Your task to perform on an android device: Search for "usb-c" on costco.com, select the first entry, add it to the cart, then select checkout. Image 0: 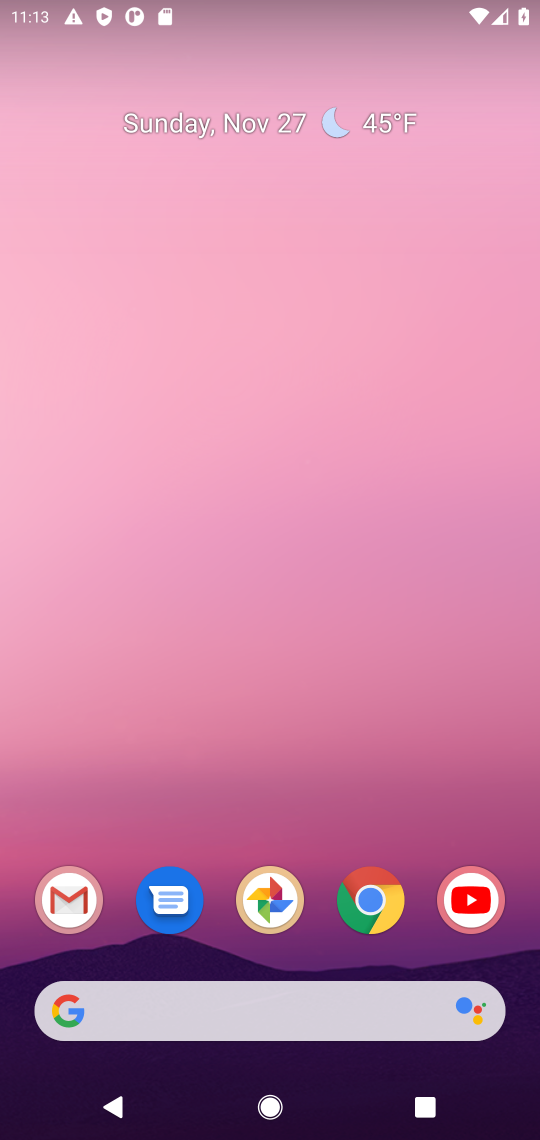
Step 0: click (371, 899)
Your task to perform on an android device: Search for "usb-c" on costco.com, select the first entry, add it to the cart, then select checkout. Image 1: 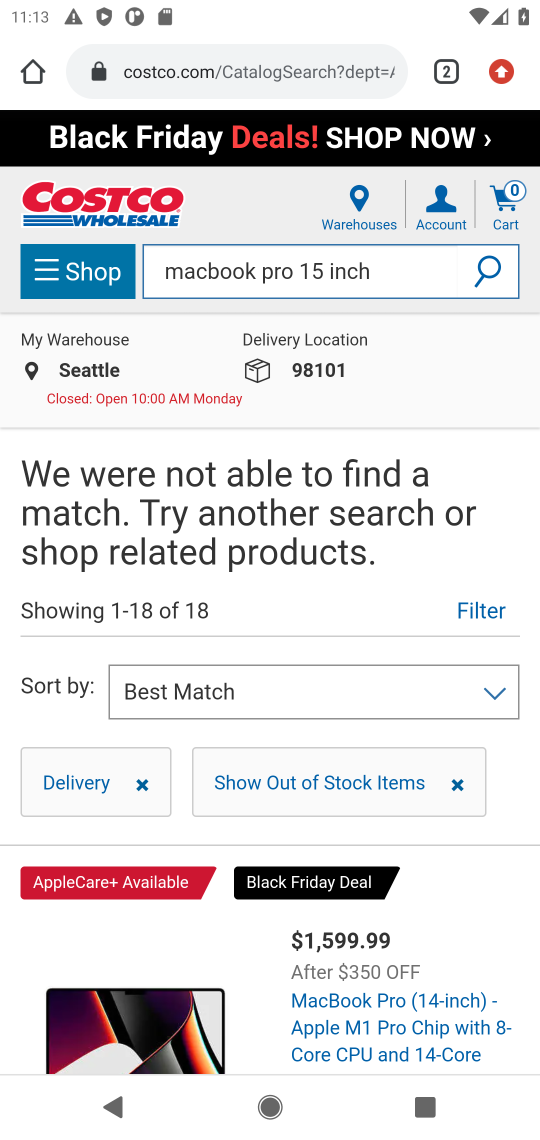
Step 1: click (394, 277)
Your task to perform on an android device: Search for "usb-c" on costco.com, select the first entry, add it to the cart, then select checkout. Image 2: 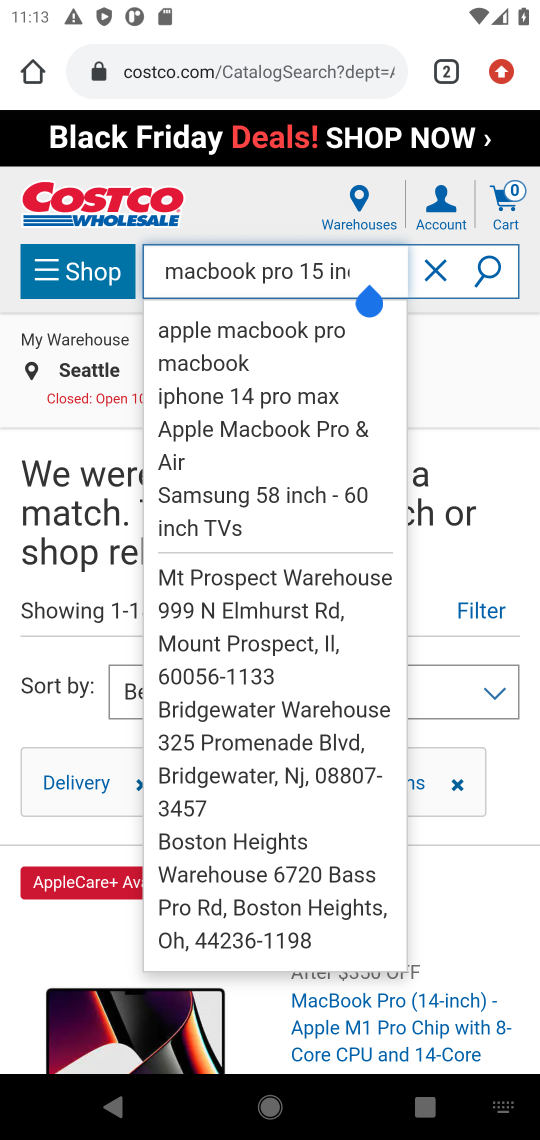
Step 2: click (440, 271)
Your task to perform on an android device: Search for "usb-c" on costco.com, select the first entry, add it to the cart, then select checkout. Image 3: 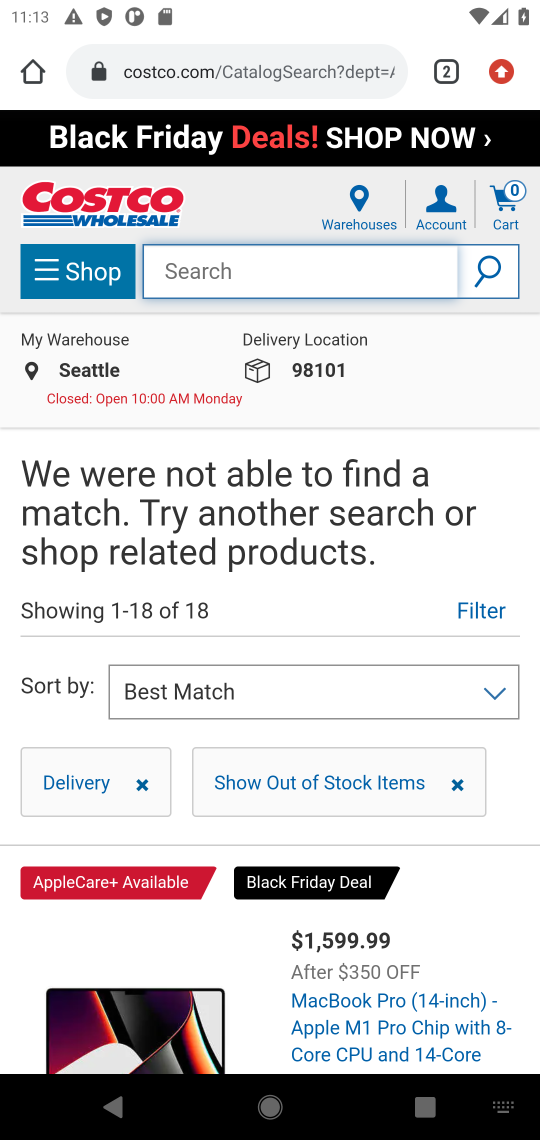
Step 3: type "usb-c"
Your task to perform on an android device: Search for "usb-c" on costco.com, select the first entry, add it to the cart, then select checkout. Image 4: 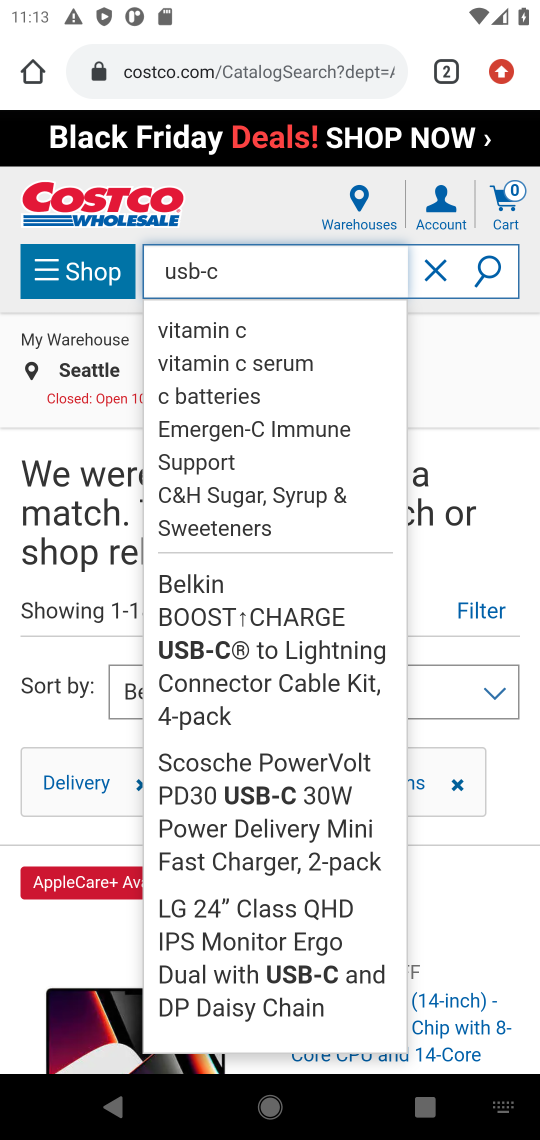
Step 4: click (485, 265)
Your task to perform on an android device: Search for "usb-c" on costco.com, select the first entry, add it to the cart, then select checkout. Image 5: 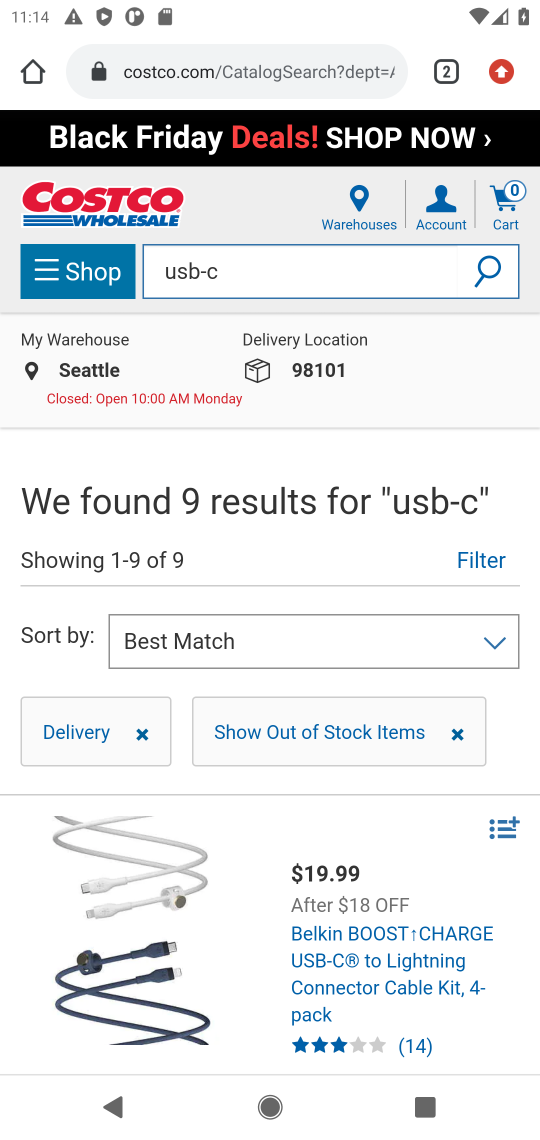
Step 5: drag from (171, 798) to (184, 497)
Your task to perform on an android device: Search for "usb-c" on costco.com, select the first entry, add it to the cart, then select checkout. Image 6: 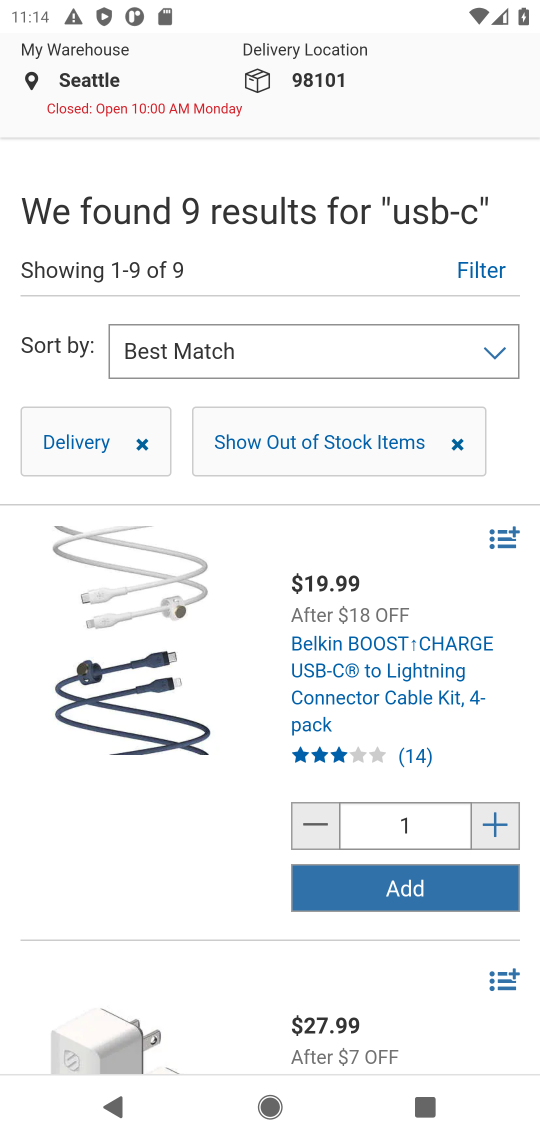
Step 6: click (375, 895)
Your task to perform on an android device: Search for "usb-c" on costco.com, select the first entry, add it to the cart, then select checkout. Image 7: 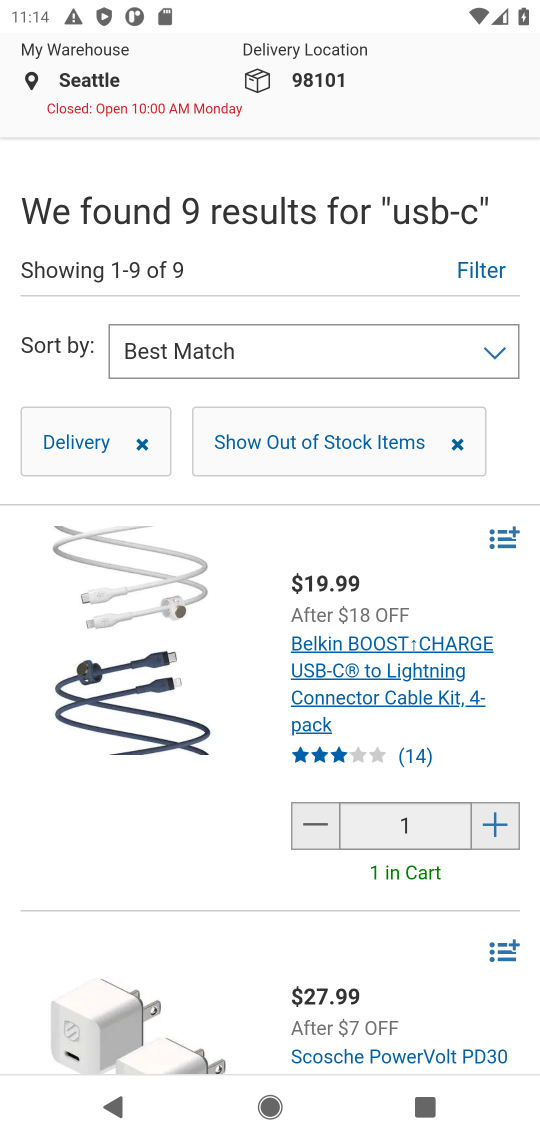
Step 7: drag from (358, 261) to (311, 651)
Your task to perform on an android device: Search for "usb-c" on costco.com, select the first entry, add it to the cart, then select checkout. Image 8: 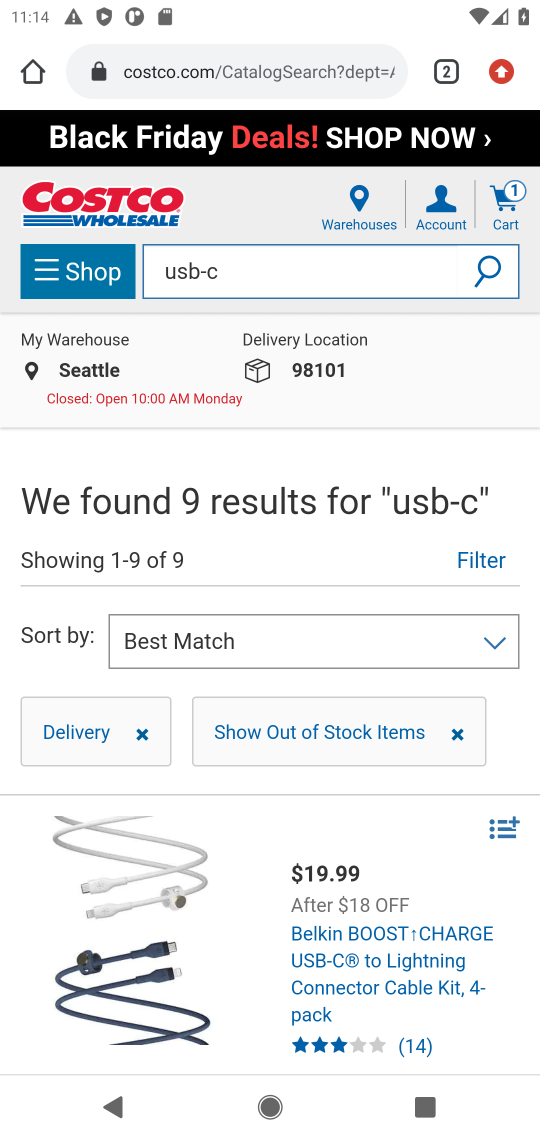
Step 8: click (505, 204)
Your task to perform on an android device: Search for "usb-c" on costco.com, select the first entry, add it to the cart, then select checkout. Image 9: 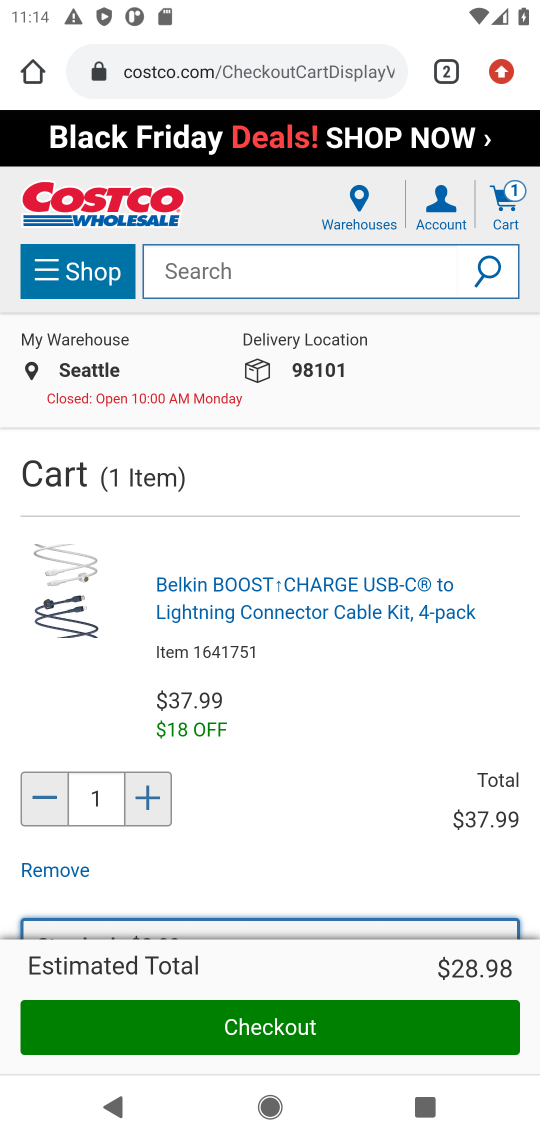
Step 9: click (241, 1027)
Your task to perform on an android device: Search for "usb-c" on costco.com, select the first entry, add it to the cart, then select checkout. Image 10: 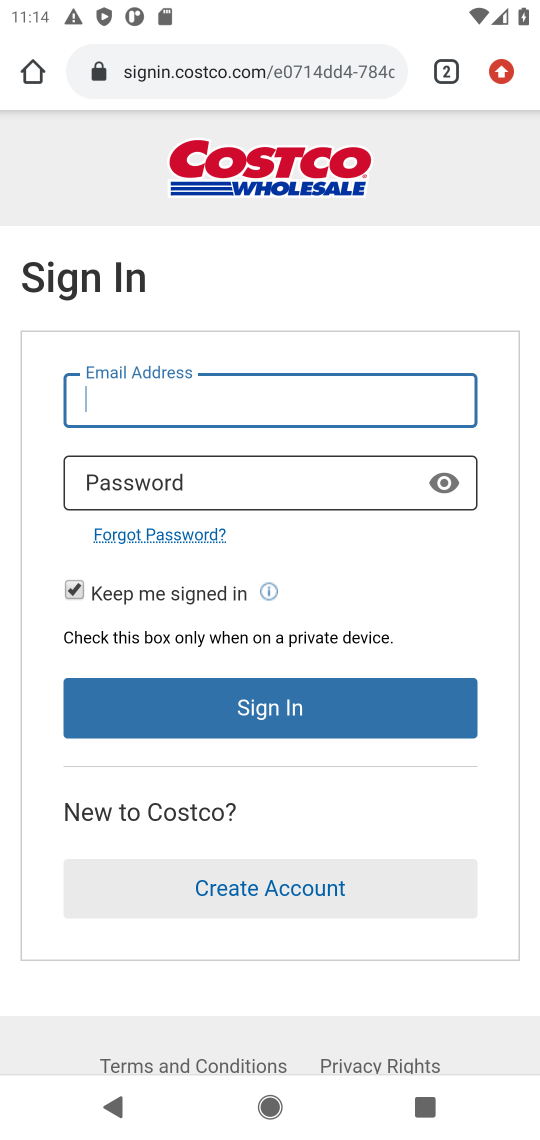
Step 10: task complete